Your task to perform on an android device: Open maps Image 0: 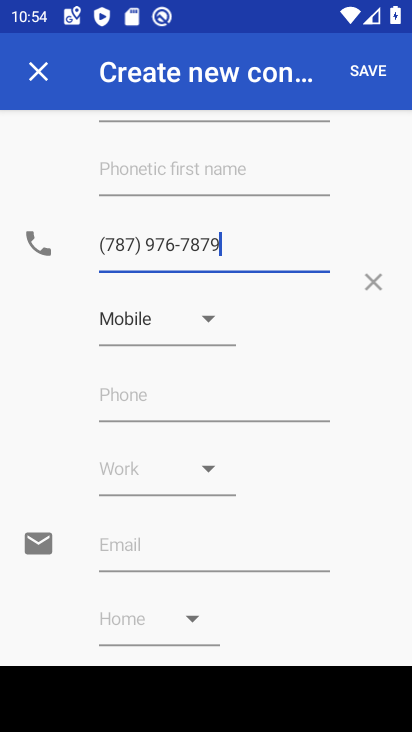
Step 0: press home button
Your task to perform on an android device: Open maps Image 1: 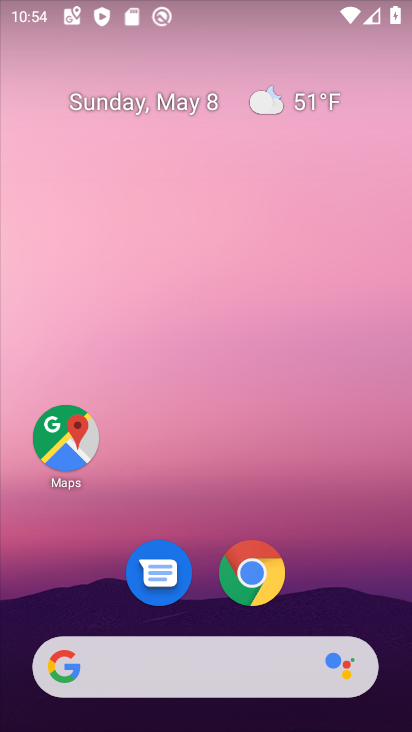
Step 1: click (59, 416)
Your task to perform on an android device: Open maps Image 2: 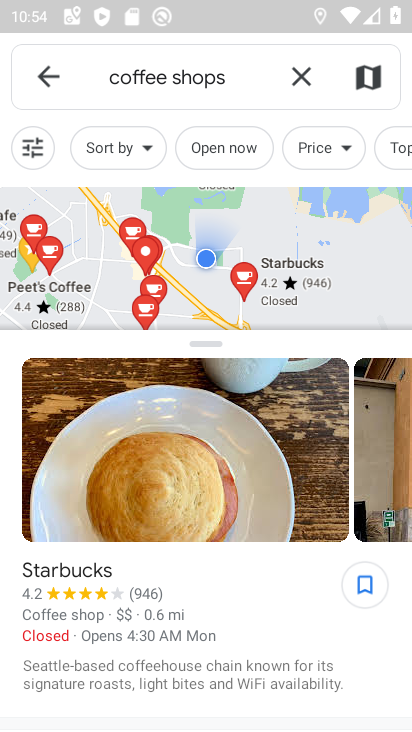
Step 2: click (301, 72)
Your task to perform on an android device: Open maps Image 3: 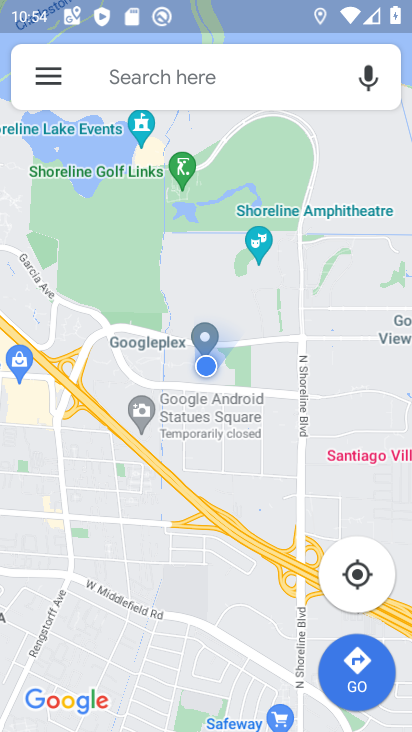
Step 3: task complete